Your task to perform on an android device: View the shopping cart on costco. Search for "razer blade" on costco, select the first entry, add it to the cart, then select checkout. Image 0: 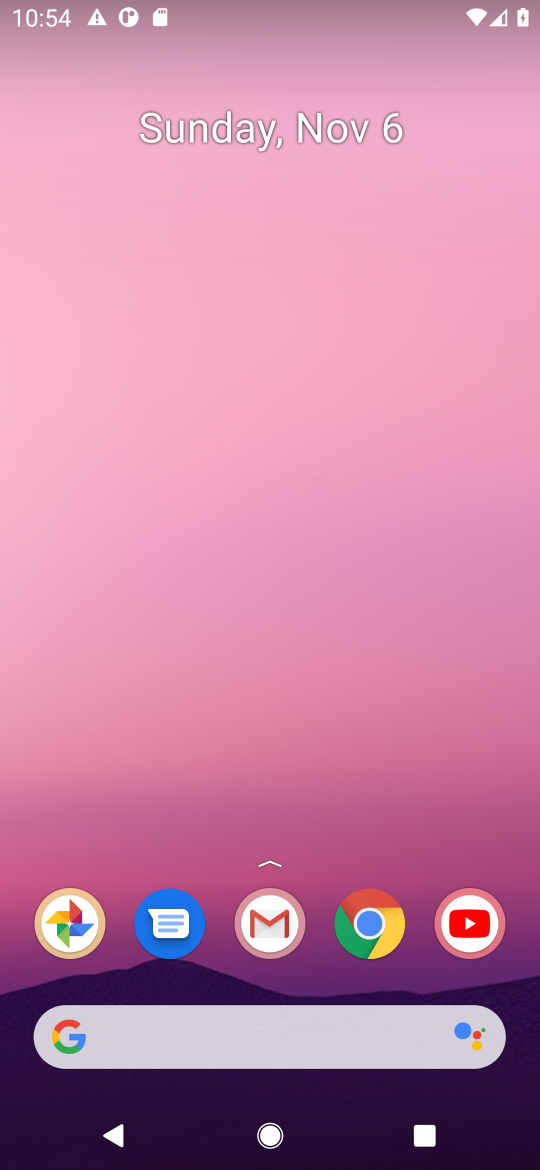
Step 0: click (344, 939)
Your task to perform on an android device: View the shopping cart on costco. Search for "razer blade" on costco, select the first entry, add it to the cart, then select checkout. Image 1: 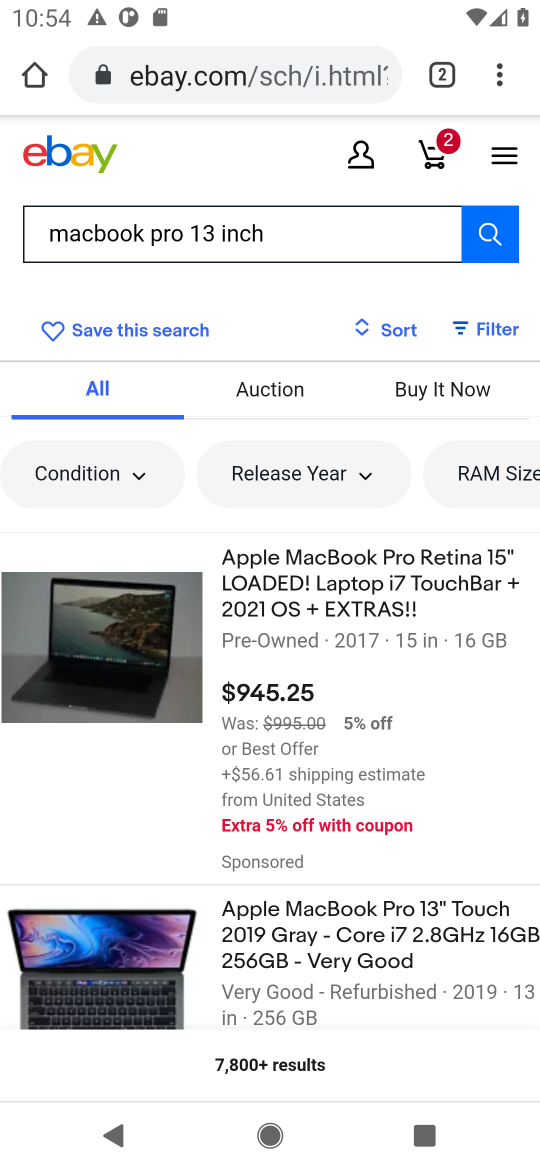
Step 1: click (233, 78)
Your task to perform on an android device: View the shopping cart on costco. Search for "razer blade" on costco, select the first entry, add it to the cart, then select checkout. Image 2: 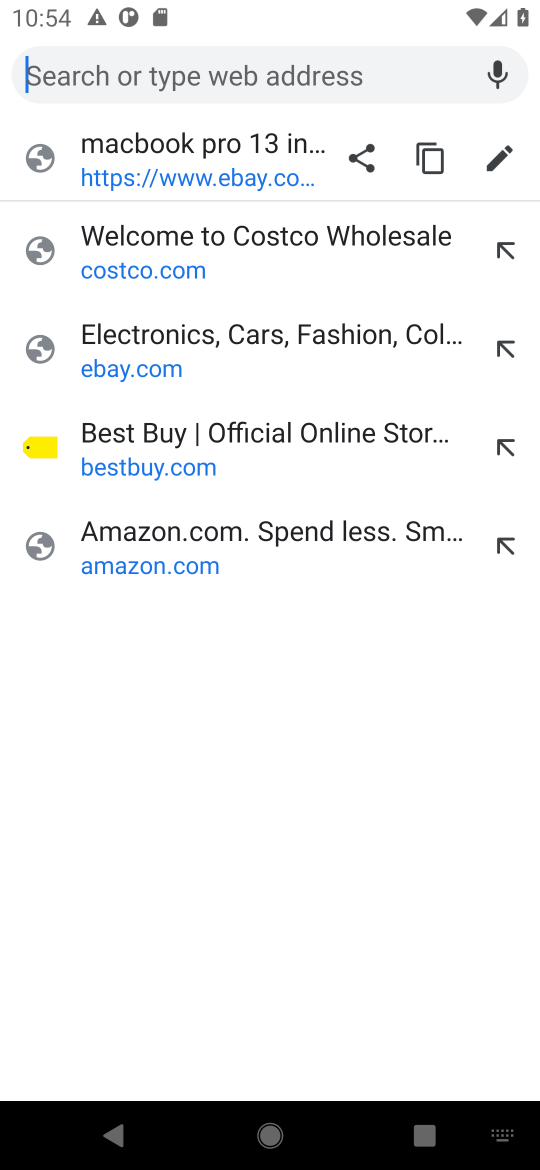
Step 2: click (163, 265)
Your task to perform on an android device: View the shopping cart on costco. Search for "razer blade" on costco, select the first entry, add it to the cart, then select checkout. Image 3: 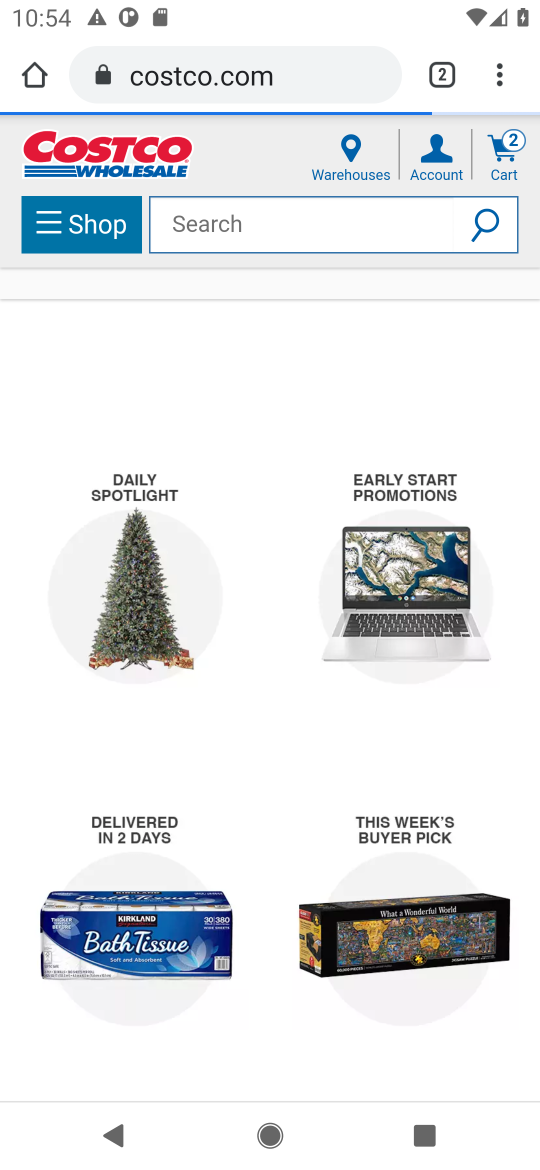
Step 3: click (499, 161)
Your task to perform on an android device: View the shopping cart on costco. Search for "razer blade" on costco, select the first entry, add it to the cart, then select checkout. Image 4: 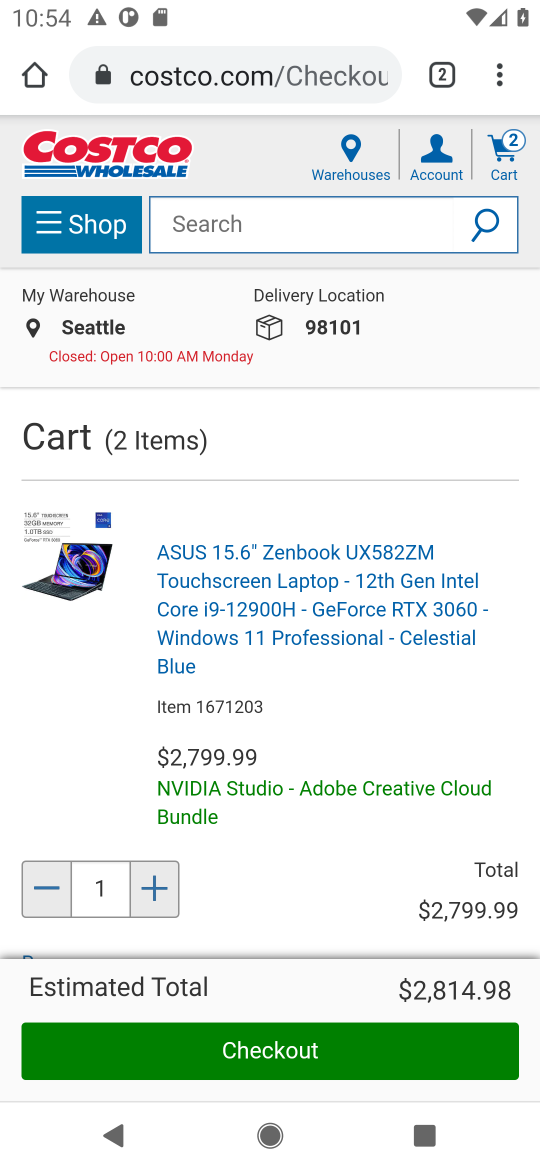
Step 4: drag from (345, 766) to (345, 562)
Your task to perform on an android device: View the shopping cart on costco. Search for "razer blade" on costco, select the first entry, add it to the cart, then select checkout. Image 5: 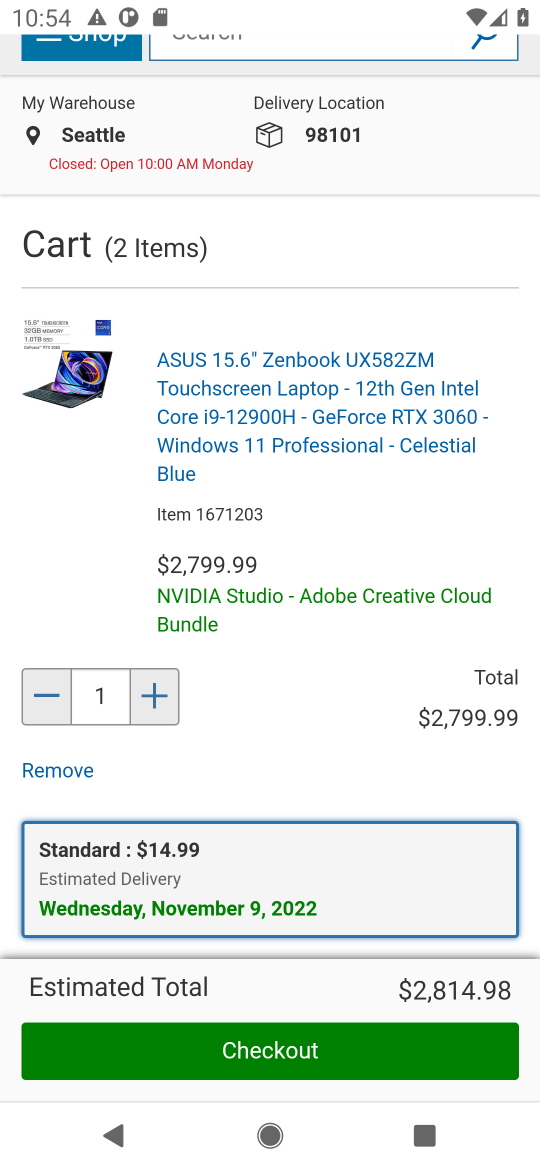
Step 5: drag from (252, 492) to (260, 907)
Your task to perform on an android device: View the shopping cart on costco. Search for "razer blade" on costco, select the first entry, add it to the cart, then select checkout. Image 6: 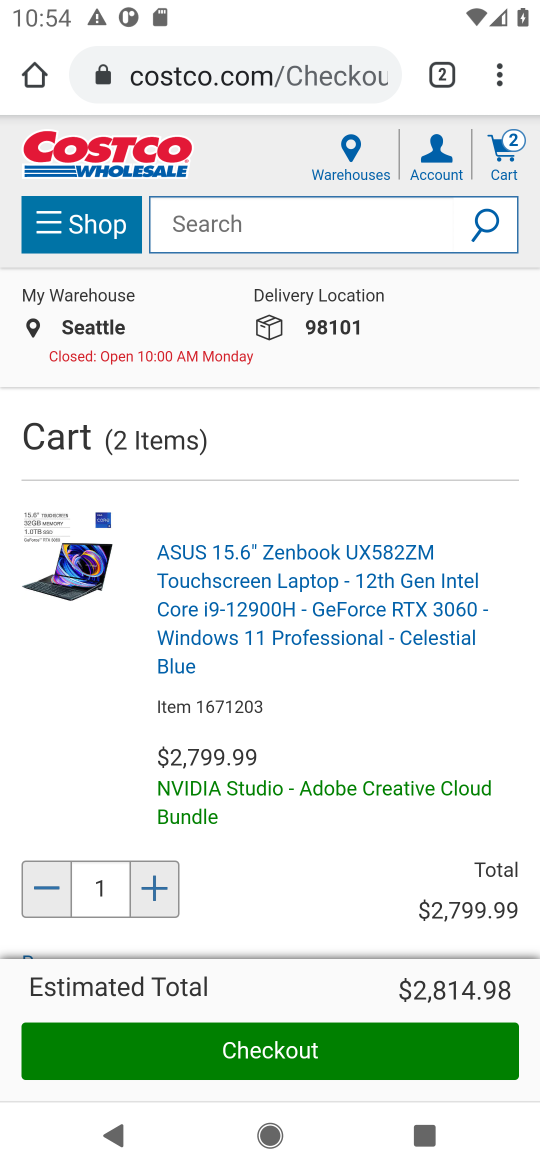
Step 6: click (233, 235)
Your task to perform on an android device: View the shopping cart on costco. Search for "razer blade" on costco, select the first entry, add it to the cart, then select checkout. Image 7: 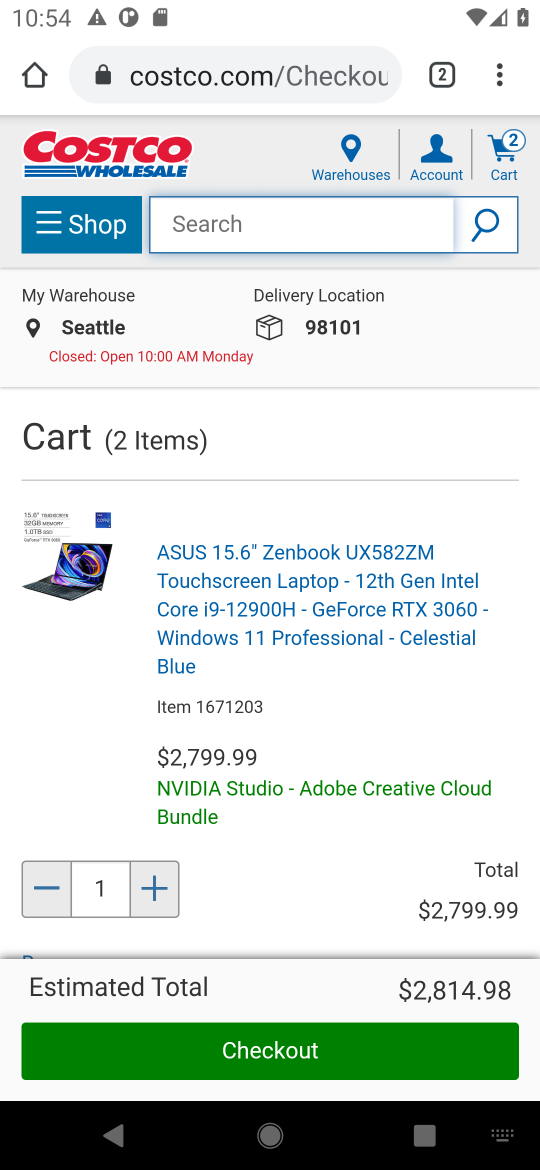
Step 7: type "razer blade"
Your task to perform on an android device: View the shopping cart on costco. Search for "razer blade" on costco, select the first entry, add it to the cart, then select checkout. Image 8: 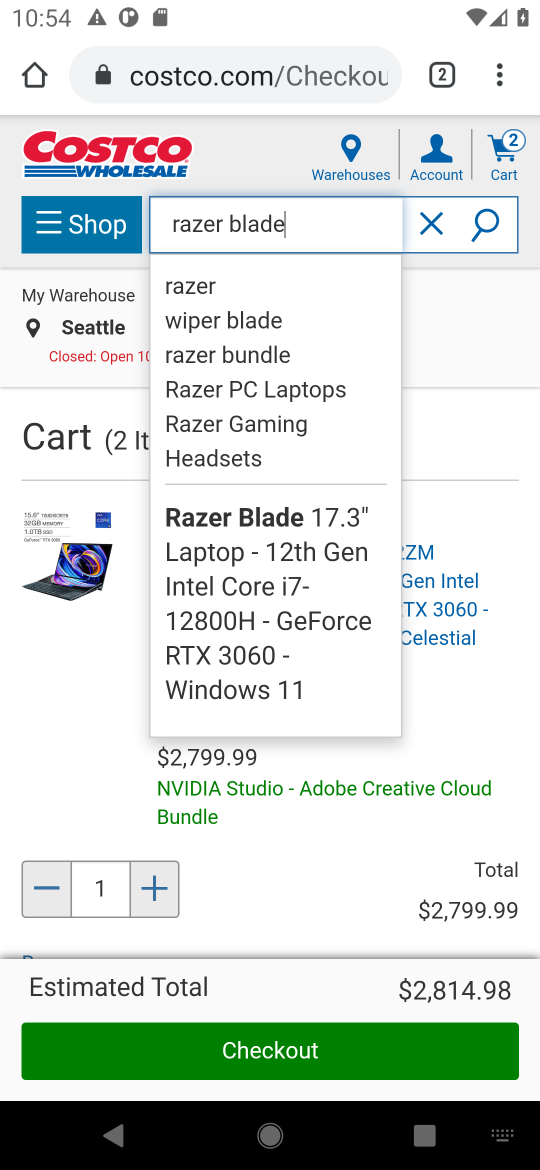
Step 8: click (475, 237)
Your task to perform on an android device: View the shopping cart on costco. Search for "razer blade" on costco, select the first entry, add it to the cart, then select checkout. Image 9: 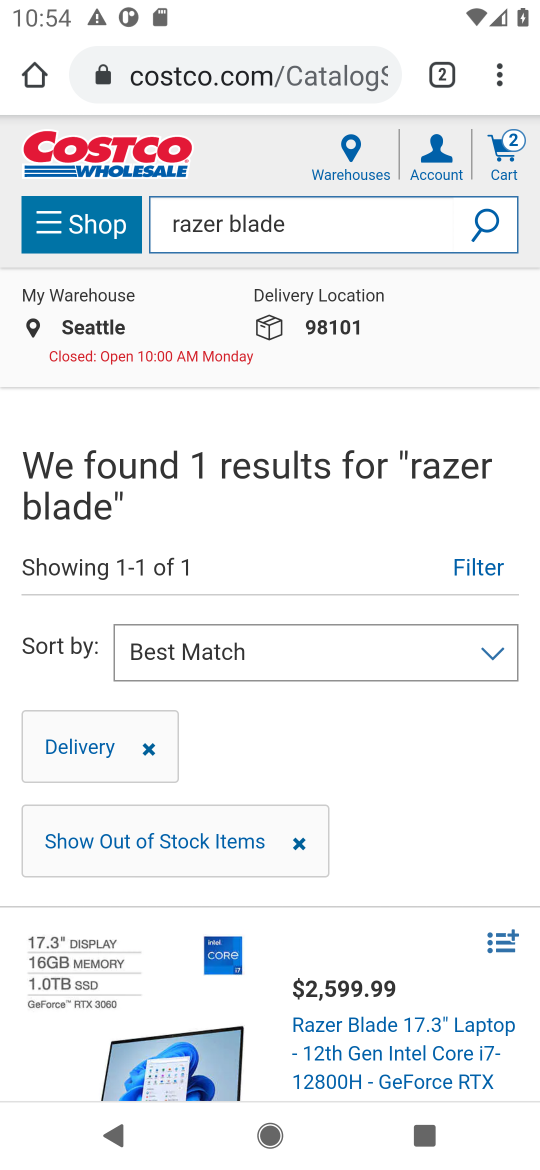
Step 9: drag from (270, 730) to (293, 455)
Your task to perform on an android device: View the shopping cart on costco. Search for "razer blade" on costco, select the first entry, add it to the cart, then select checkout. Image 10: 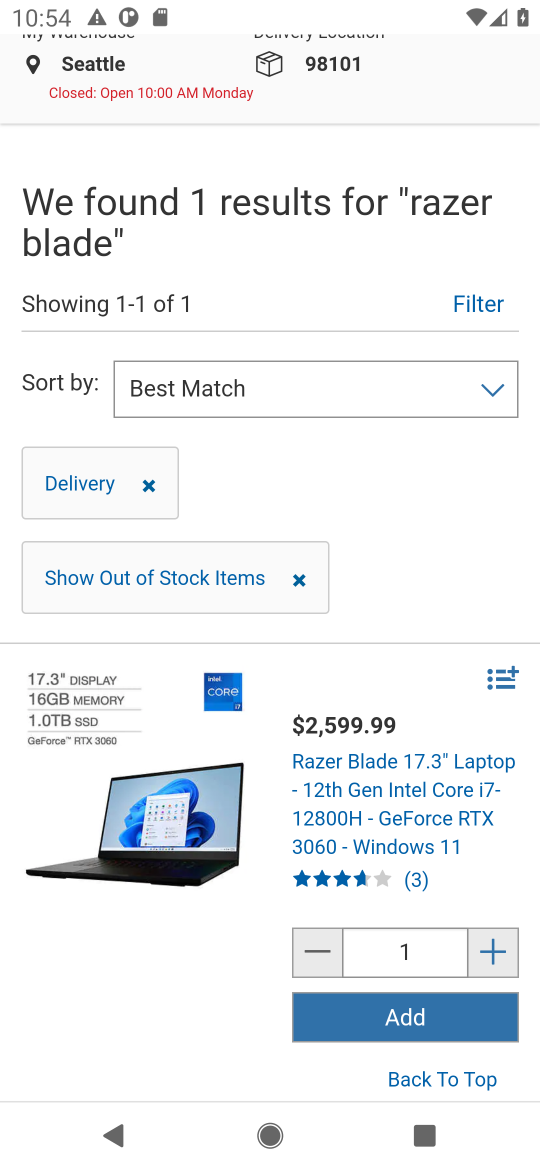
Step 10: click (395, 1013)
Your task to perform on an android device: View the shopping cart on costco. Search for "razer blade" on costco, select the first entry, add it to the cart, then select checkout. Image 11: 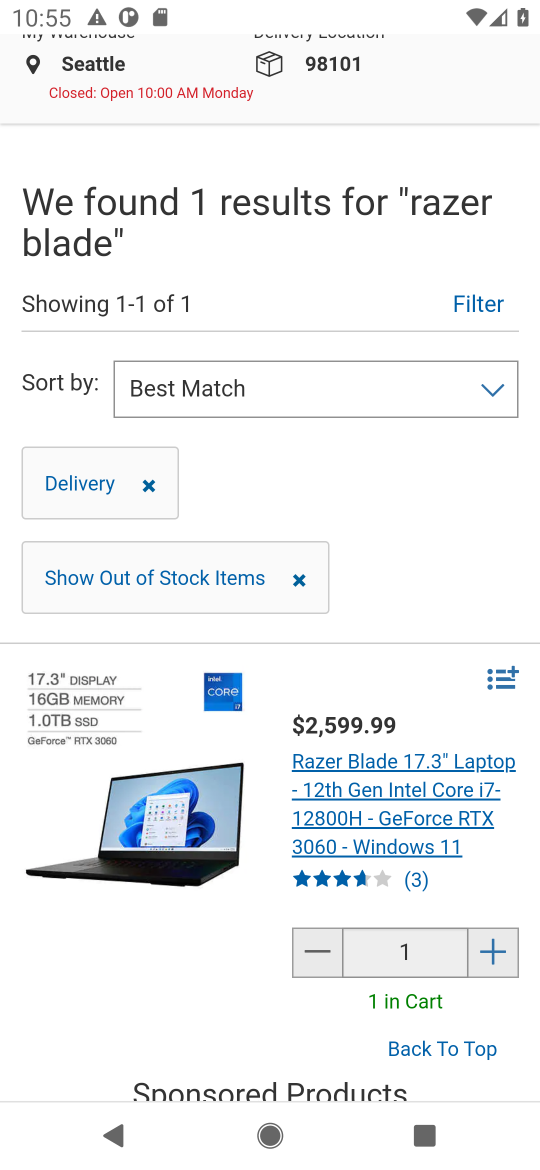
Step 11: click (395, 999)
Your task to perform on an android device: View the shopping cart on costco. Search for "razer blade" on costco, select the first entry, add it to the cart, then select checkout. Image 12: 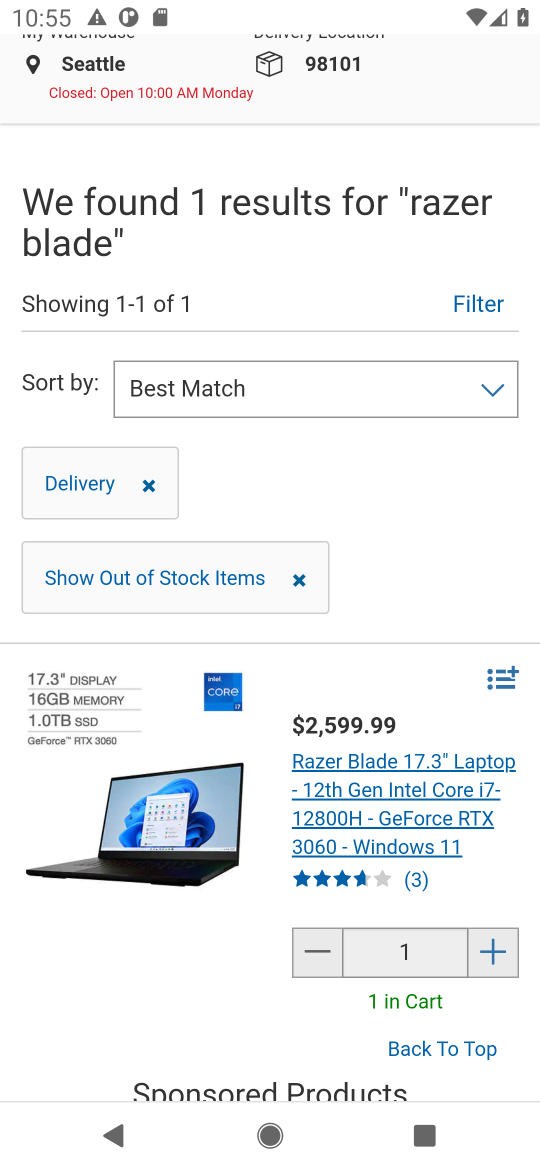
Step 12: drag from (430, 482) to (422, 824)
Your task to perform on an android device: View the shopping cart on costco. Search for "razer blade" on costco, select the first entry, add it to the cart, then select checkout. Image 13: 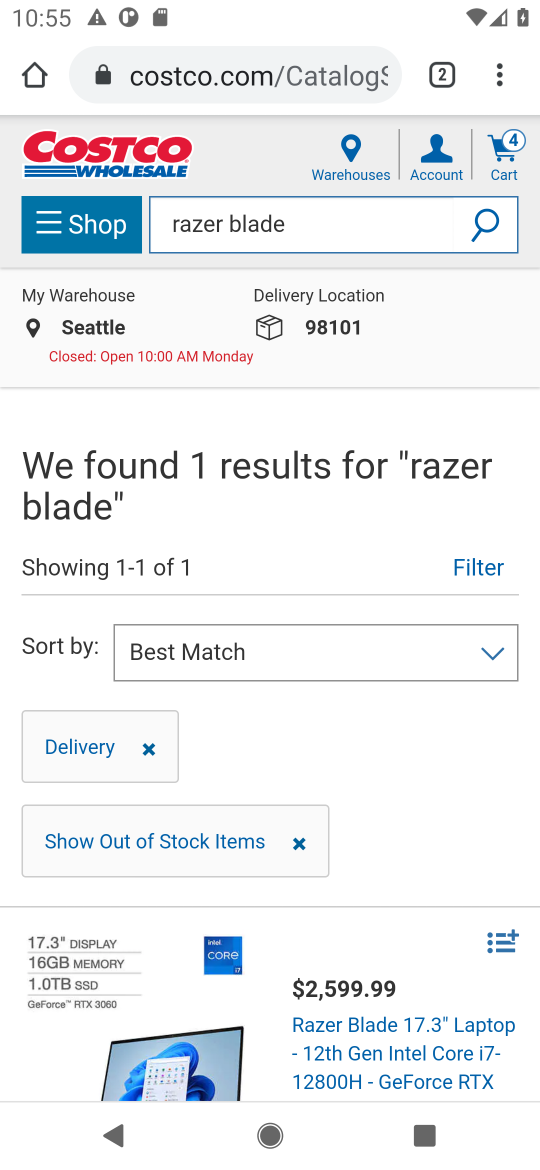
Step 13: click (498, 170)
Your task to perform on an android device: View the shopping cart on costco. Search for "razer blade" on costco, select the first entry, add it to the cart, then select checkout. Image 14: 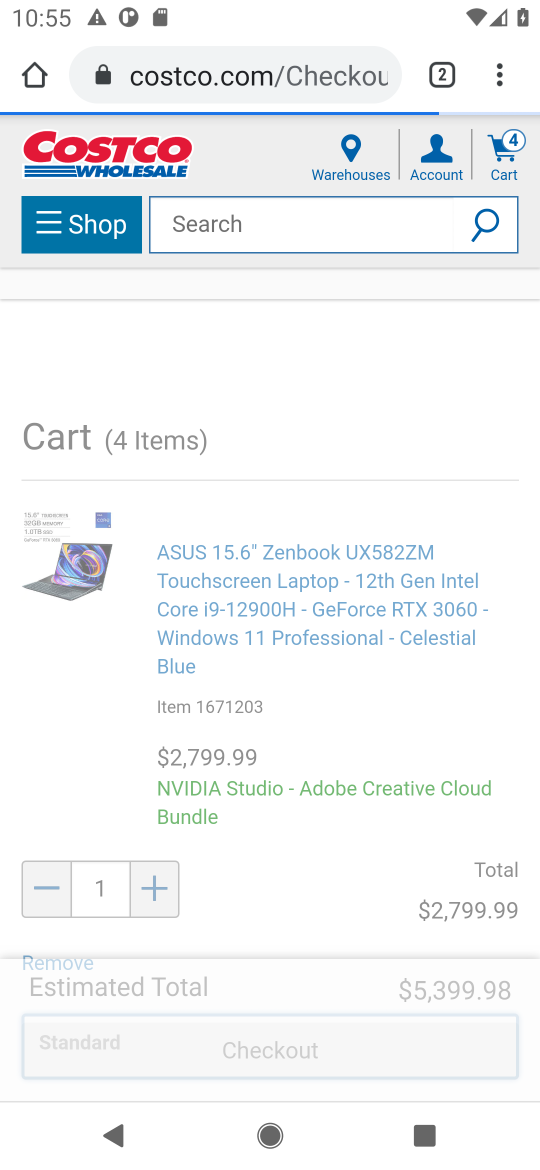
Step 14: click (309, 1047)
Your task to perform on an android device: View the shopping cart on costco. Search for "razer blade" on costco, select the first entry, add it to the cart, then select checkout. Image 15: 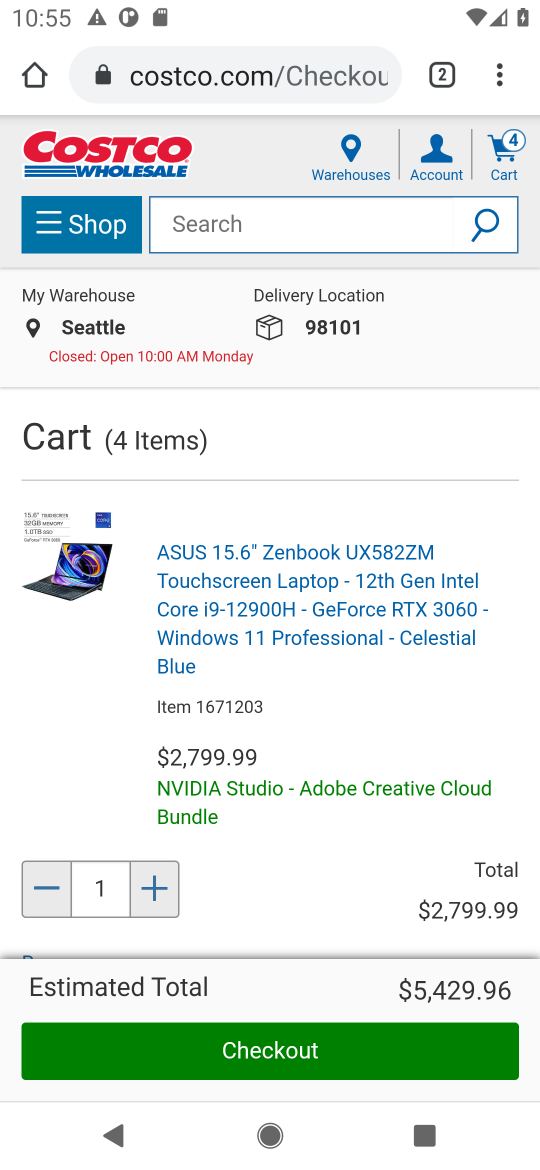
Step 15: click (309, 1047)
Your task to perform on an android device: View the shopping cart on costco. Search for "razer blade" on costco, select the first entry, add it to the cart, then select checkout. Image 16: 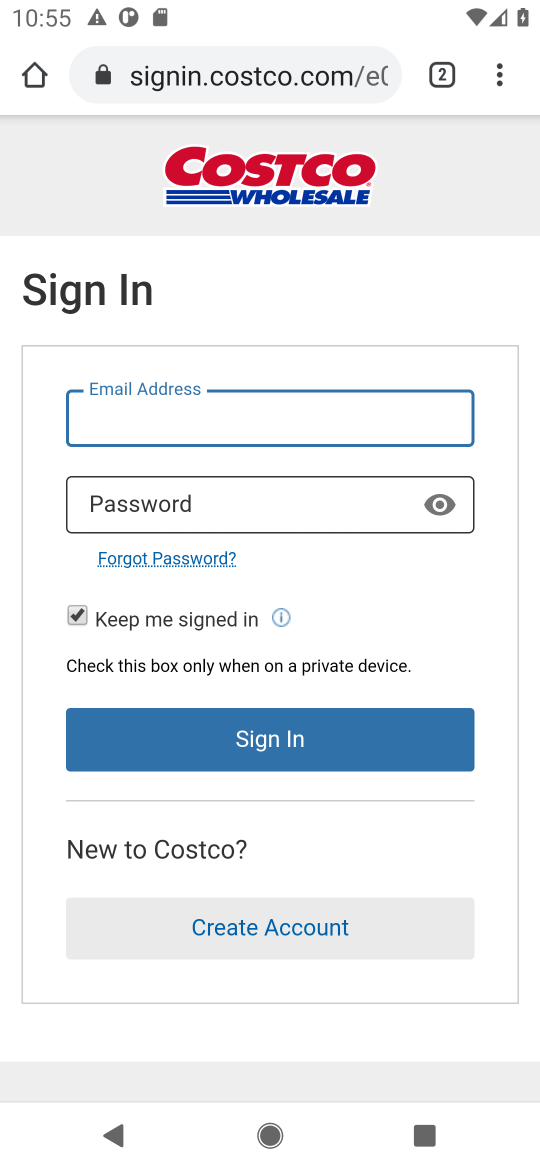
Step 16: task complete